Your task to perform on an android device: turn off wifi Image 0: 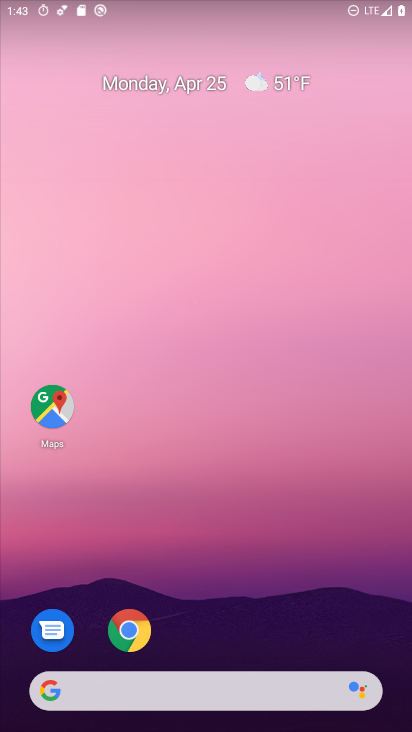
Step 0: drag from (184, 654) to (192, 579)
Your task to perform on an android device: turn off wifi Image 1: 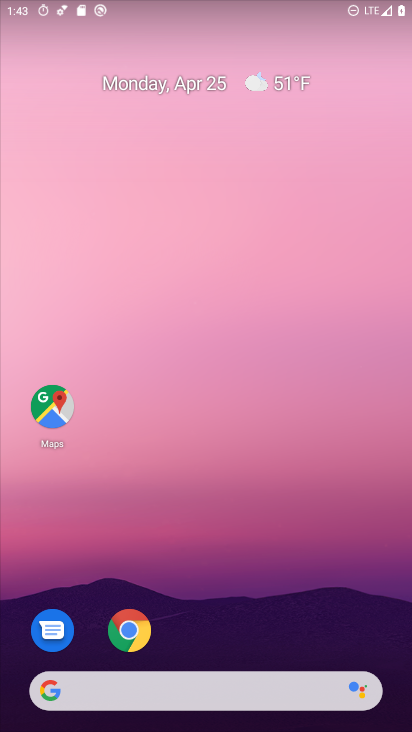
Step 1: drag from (200, 656) to (253, 224)
Your task to perform on an android device: turn off wifi Image 2: 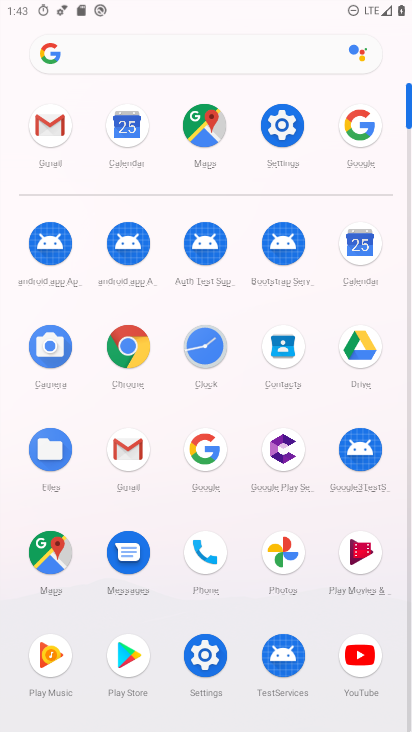
Step 2: drag from (243, 629) to (228, 98)
Your task to perform on an android device: turn off wifi Image 3: 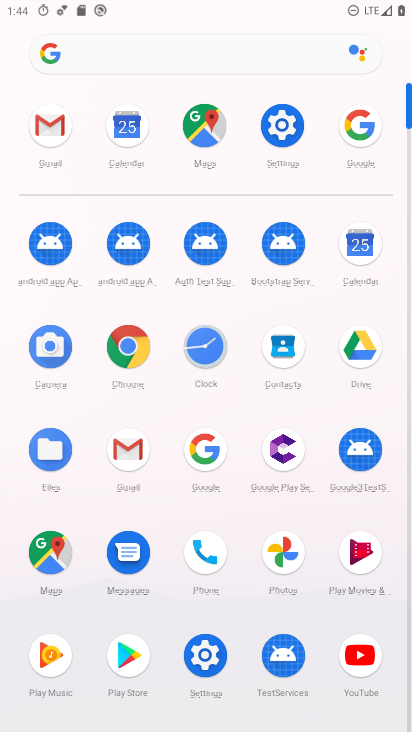
Step 3: drag from (239, 669) to (234, 166)
Your task to perform on an android device: turn off wifi Image 4: 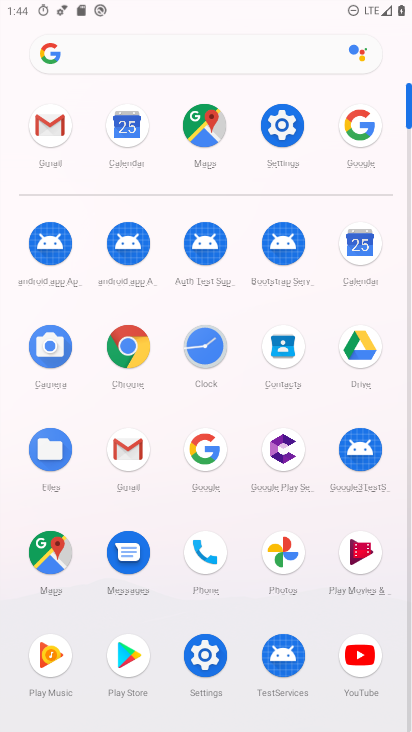
Step 4: click (208, 659)
Your task to perform on an android device: turn off wifi Image 5: 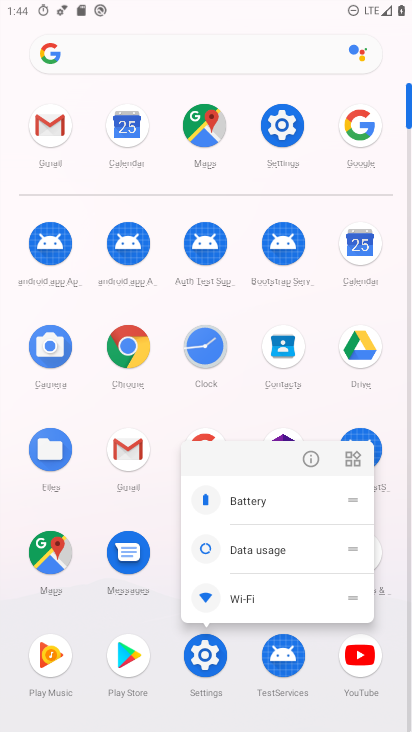
Step 5: click (306, 456)
Your task to perform on an android device: turn off wifi Image 6: 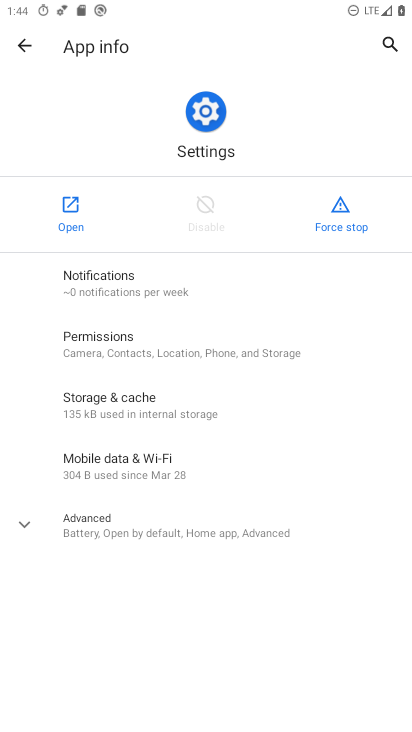
Step 6: click (62, 217)
Your task to perform on an android device: turn off wifi Image 7: 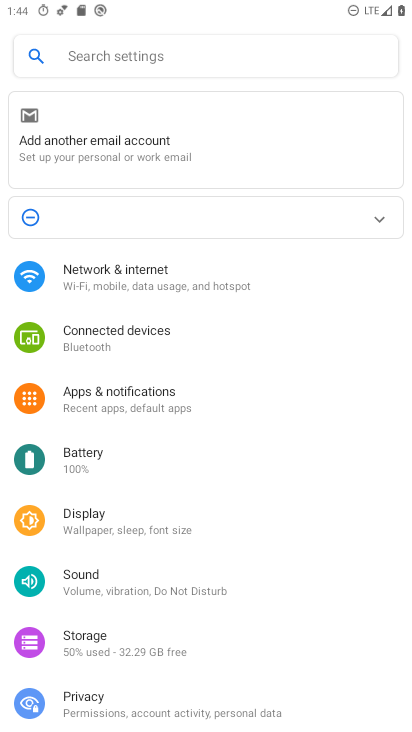
Step 7: click (132, 268)
Your task to perform on an android device: turn off wifi Image 8: 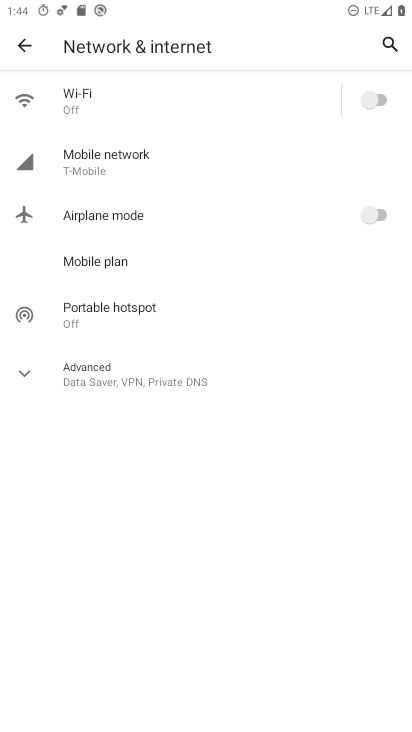
Step 8: task complete